Your task to perform on an android device: Do I have any events tomorrow? Image 0: 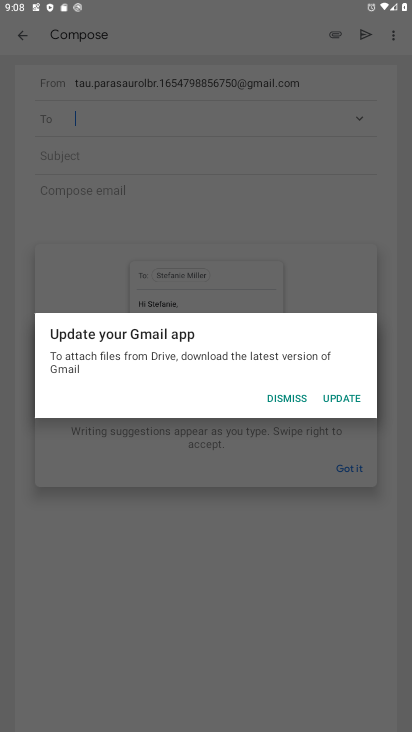
Step 0: press home button
Your task to perform on an android device: Do I have any events tomorrow? Image 1: 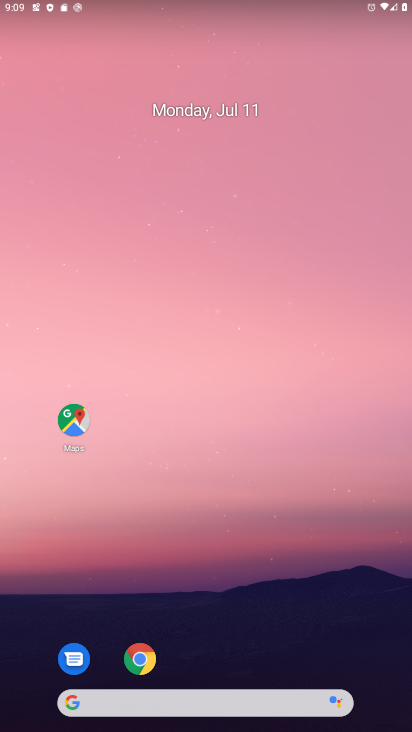
Step 1: drag from (210, 618) to (192, 213)
Your task to perform on an android device: Do I have any events tomorrow? Image 2: 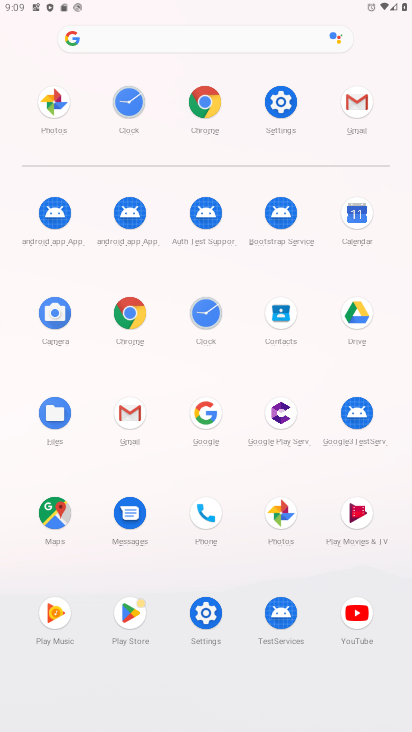
Step 2: click (358, 214)
Your task to perform on an android device: Do I have any events tomorrow? Image 3: 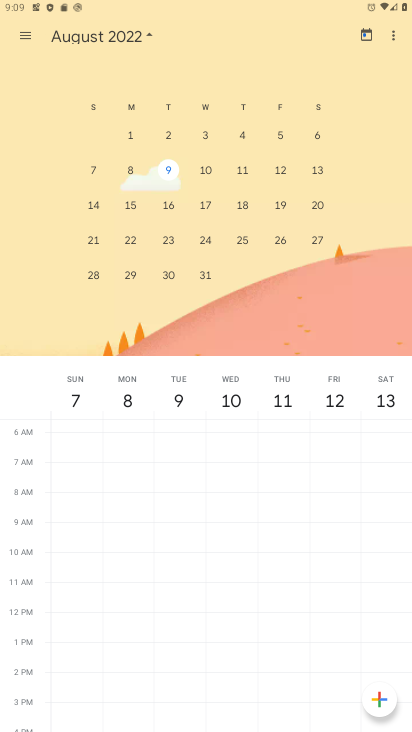
Step 3: drag from (90, 158) to (389, 278)
Your task to perform on an android device: Do I have any events tomorrow? Image 4: 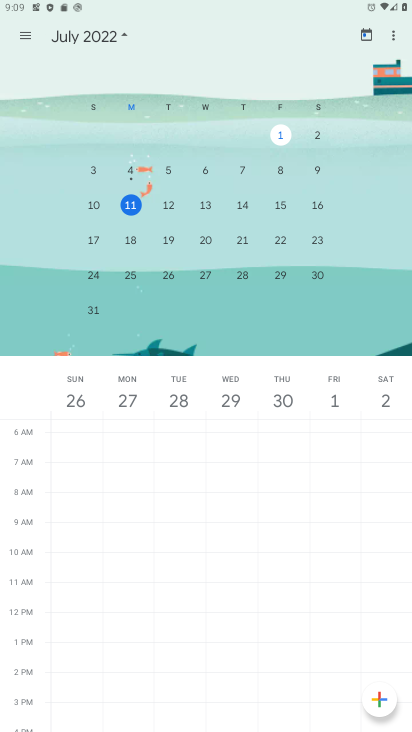
Step 4: click (167, 204)
Your task to perform on an android device: Do I have any events tomorrow? Image 5: 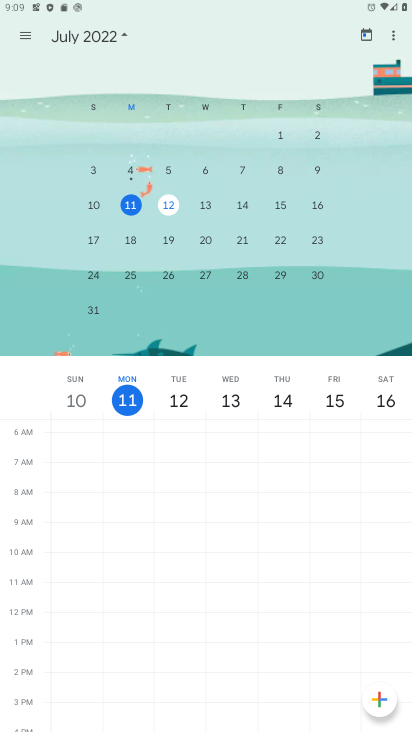
Step 5: click (167, 204)
Your task to perform on an android device: Do I have any events tomorrow? Image 6: 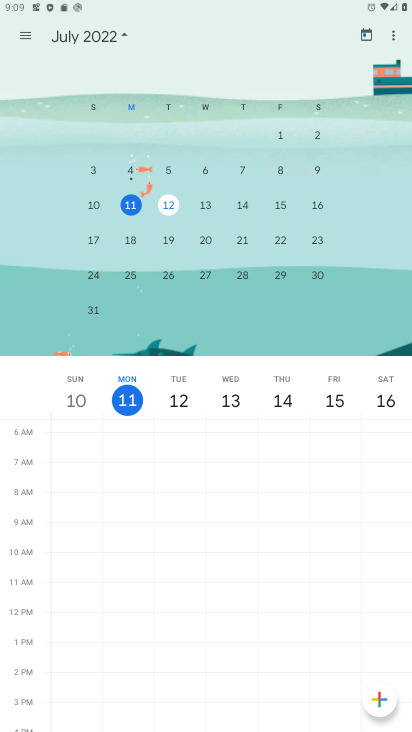
Step 6: click (173, 400)
Your task to perform on an android device: Do I have any events tomorrow? Image 7: 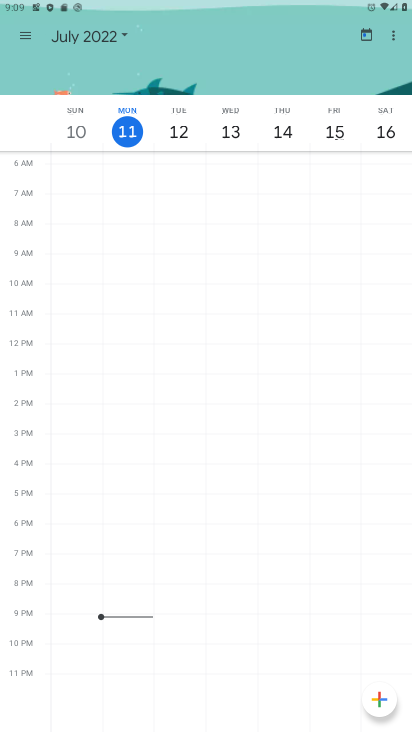
Step 7: click (24, 29)
Your task to perform on an android device: Do I have any events tomorrow? Image 8: 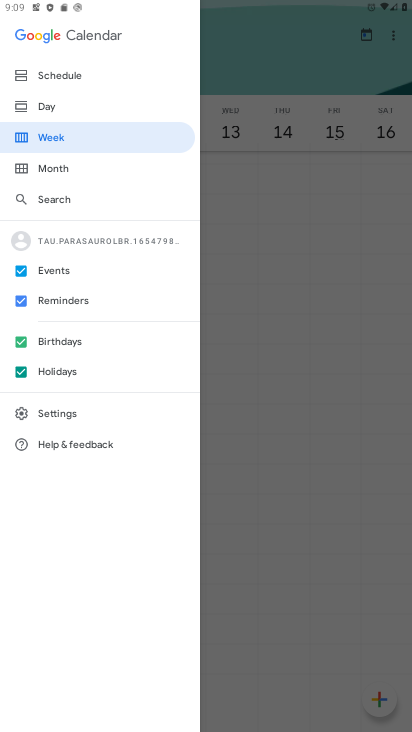
Step 8: click (50, 113)
Your task to perform on an android device: Do I have any events tomorrow? Image 9: 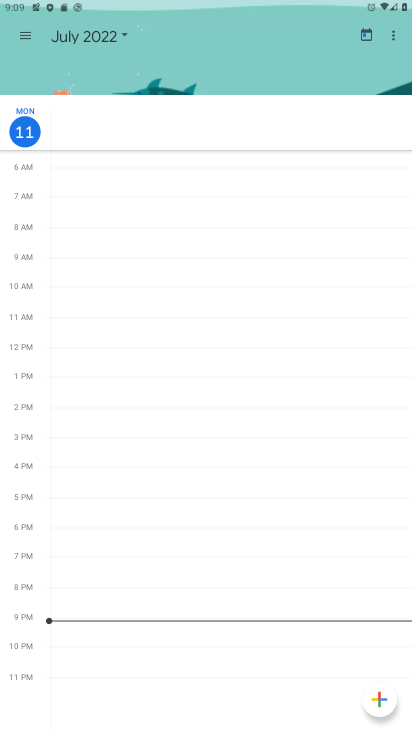
Step 9: click (128, 34)
Your task to perform on an android device: Do I have any events tomorrow? Image 10: 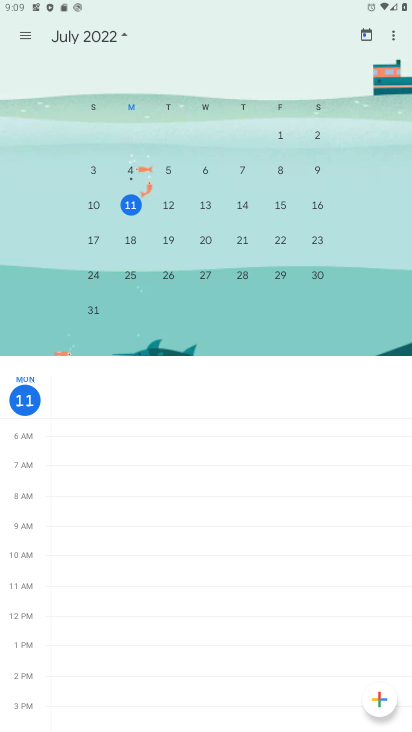
Step 10: click (168, 202)
Your task to perform on an android device: Do I have any events tomorrow? Image 11: 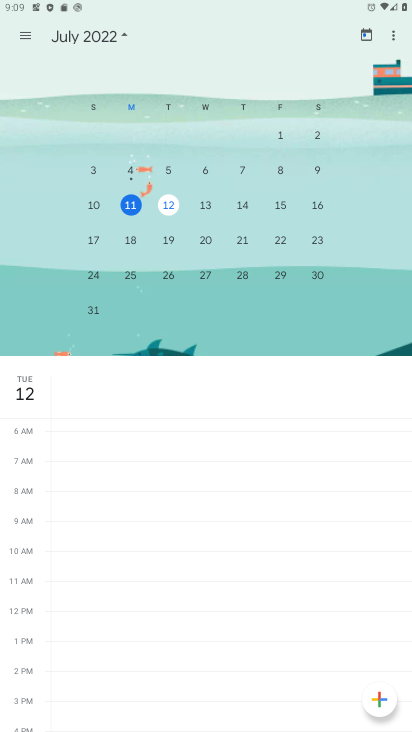
Step 11: click (168, 202)
Your task to perform on an android device: Do I have any events tomorrow? Image 12: 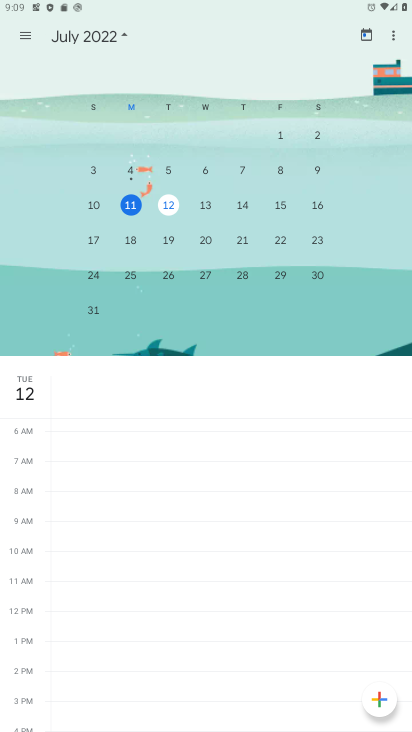
Step 12: task complete